Your task to perform on an android device: turn pop-ups on in chrome Image 0: 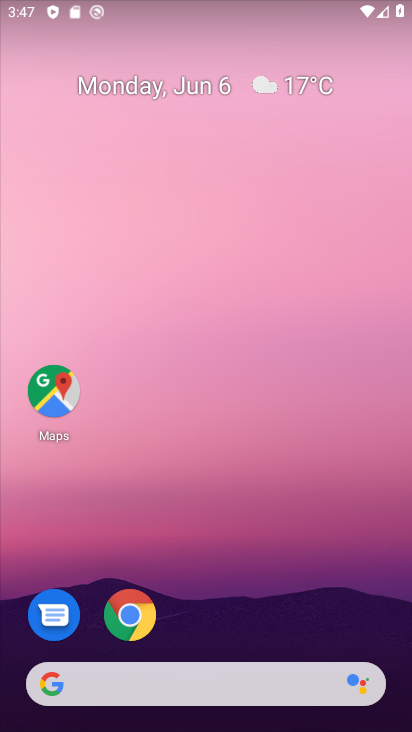
Step 0: drag from (268, 585) to (180, 53)
Your task to perform on an android device: turn pop-ups on in chrome Image 1: 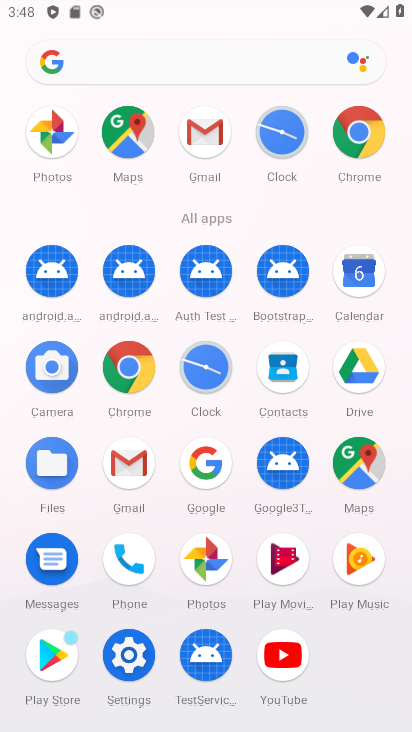
Step 1: drag from (16, 557) to (2, 239)
Your task to perform on an android device: turn pop-ups on in chrome Image 2: 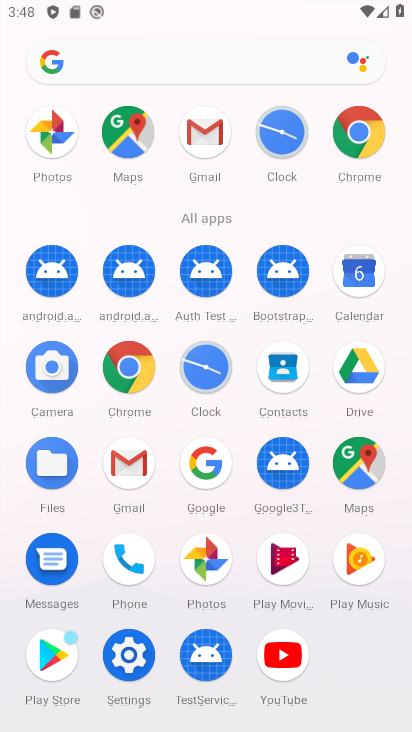
Step 2: click (125, 363)
Your task to perform on an android device: turn pop-ups on in chrome Image 3: 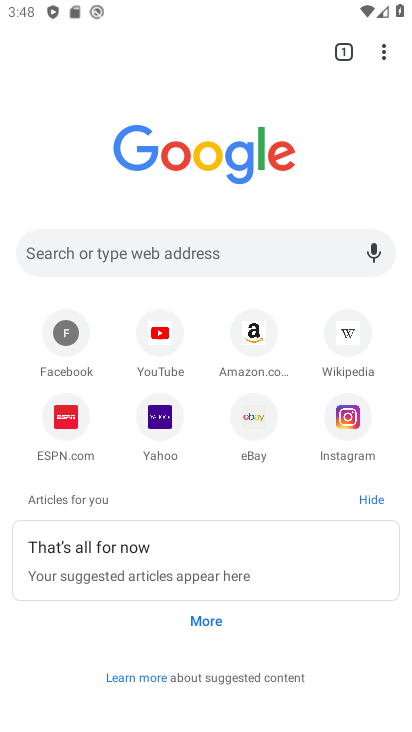
Step 3: drag from (380, 45) to (201, 442)
Your task to perform on an android device: turn pop-ups on in chrome Image 4: 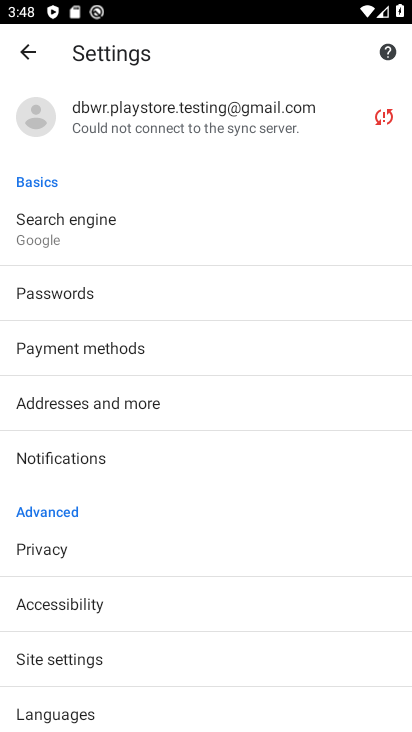
Step 4: click (100, 656)
Your task to perform on an android device: turn pop-ups on in chrome Image 5: 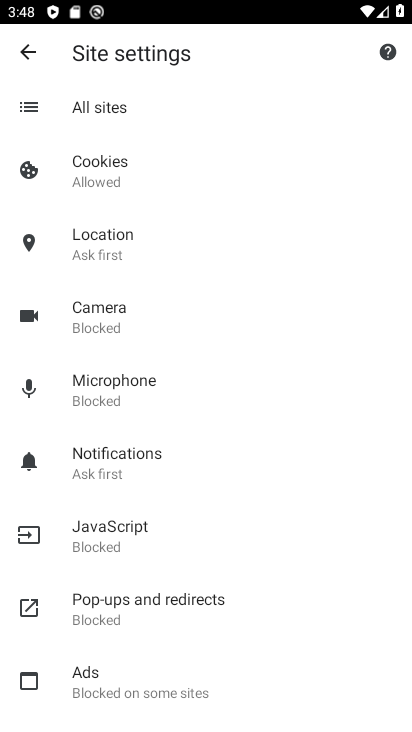
Step 5: click (136, 617)
Your task to perform on an android device: turn pop-ups on in chrome Image 6: 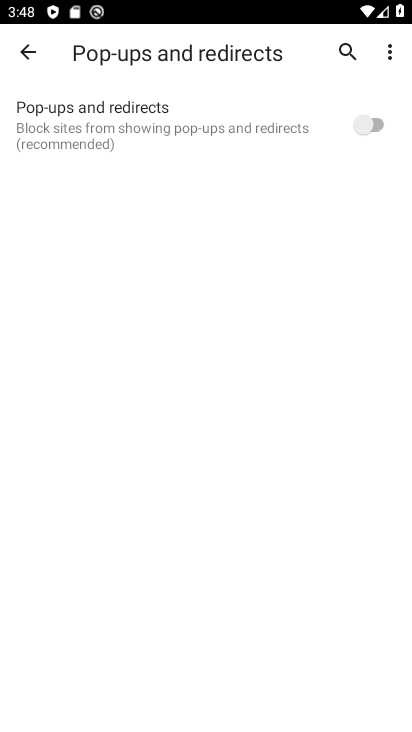
Step 6: click (370, 122)
Your task to perform on an android device: turn pop-ups on in chrome Image 7: 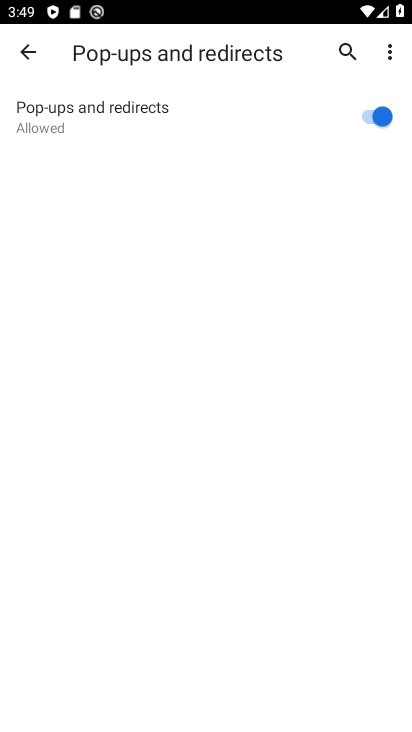
Step 7: task complete